Your task to perform on an android device: move a message to another label in the gmail app Image 0: 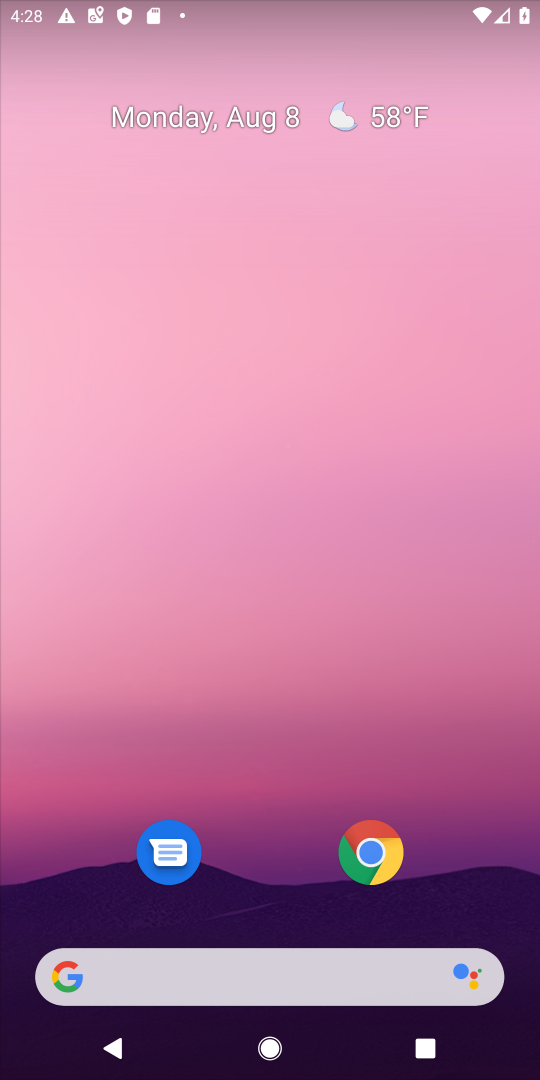
Step 0: press home button
Your task to perform on an android device: move a message to another label in the gmail app Image 1: 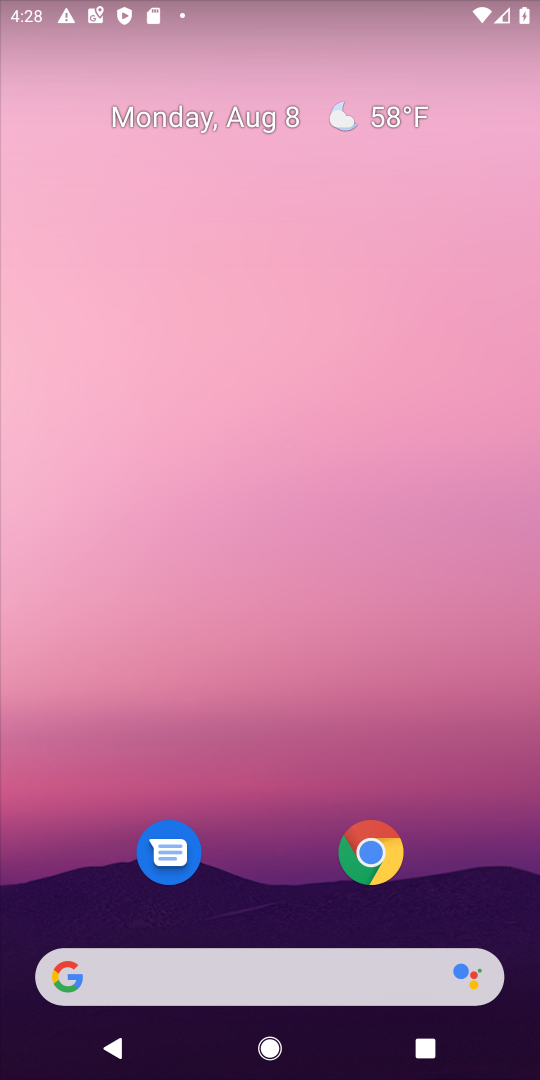
Step 1: press home button
Your task to perform on an android device: move a message to another label in the gmail app Image 2: 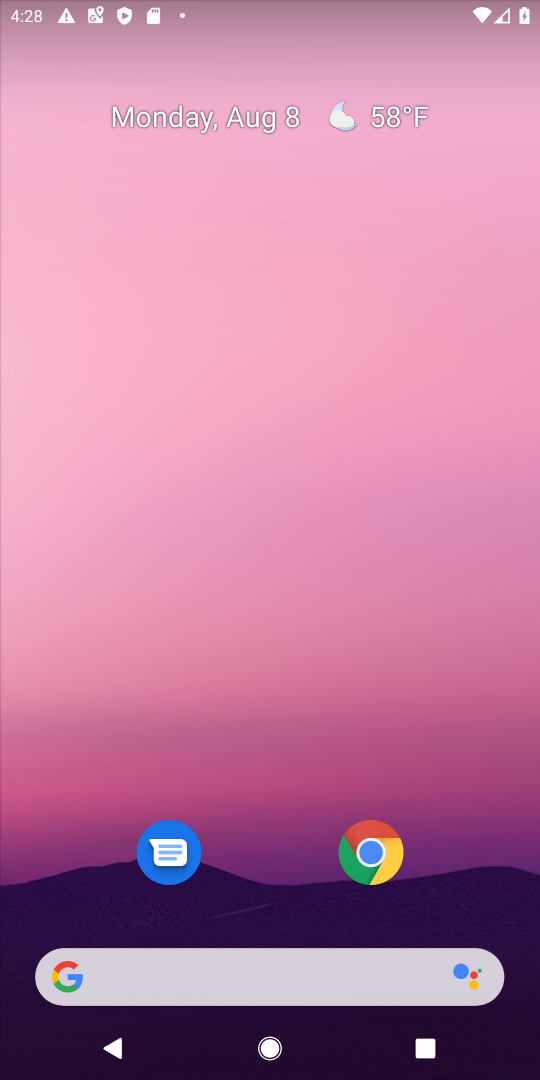
Step 2: drag from (301, 624) to (385, 213)
Your task to perform on an android device: move a message to another label in the gmail app Image 3: 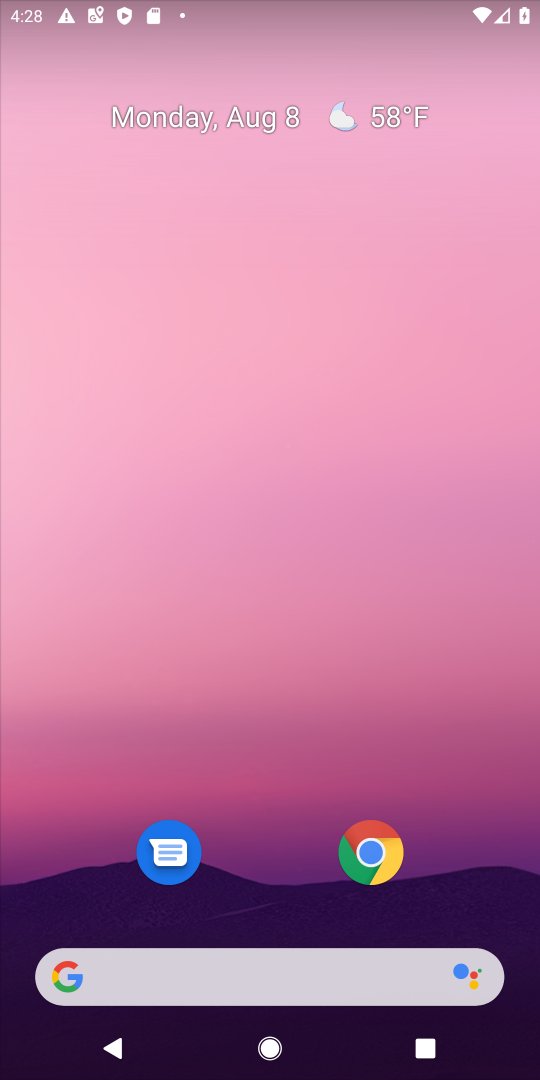
Step 3: drag from (313, 704) to (393, 233)
Your task to perform on an android device: move a message to another label in the gmail app Image 4: 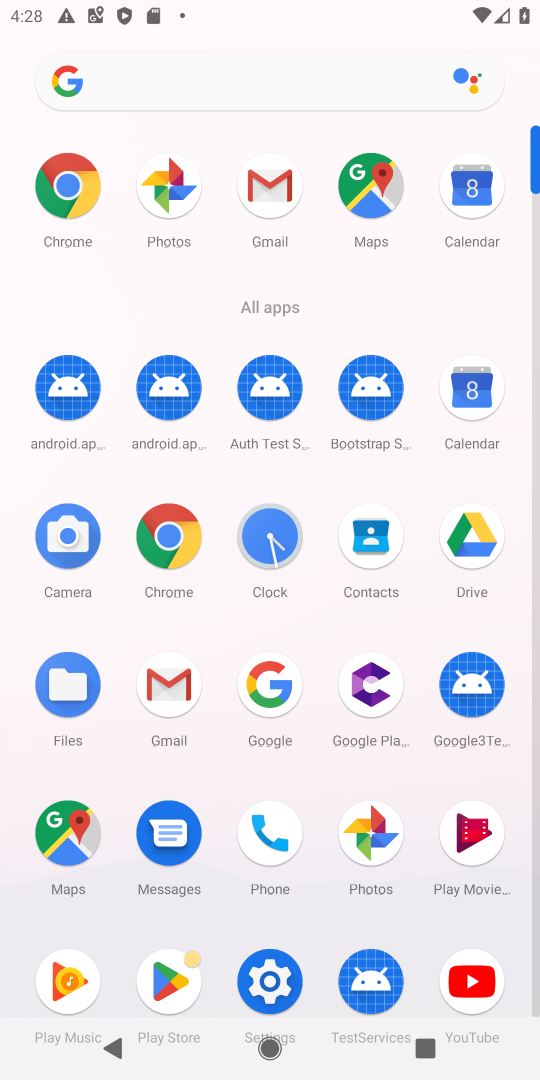
Step 4: click (163, 704)
Your task to perform on an android device: move a message to another label in the gmail app Image 5: 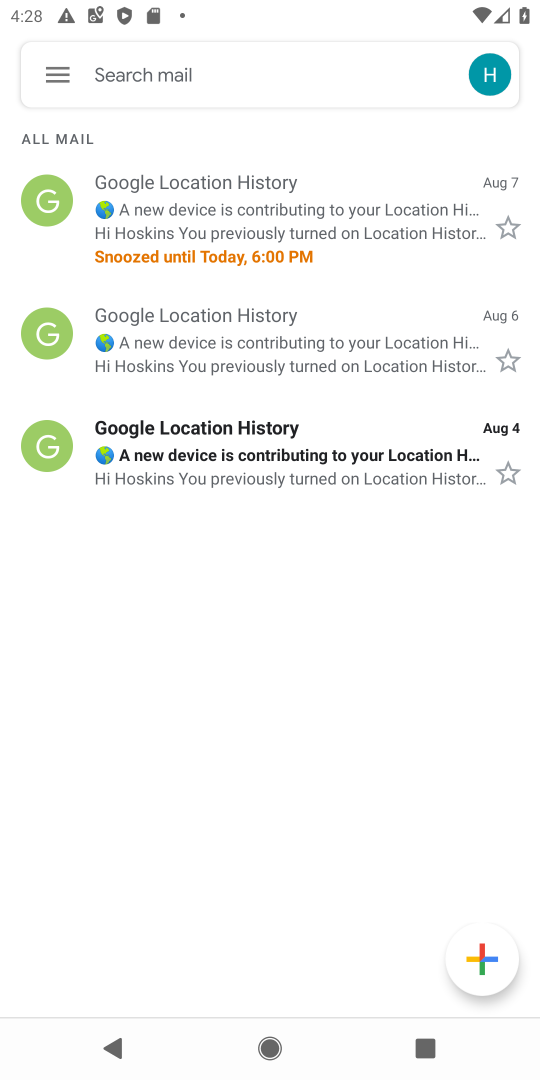
Step 5: click (65, 84)
Your task to perform on an android device: move a message to another label in the gmail app Image 6: 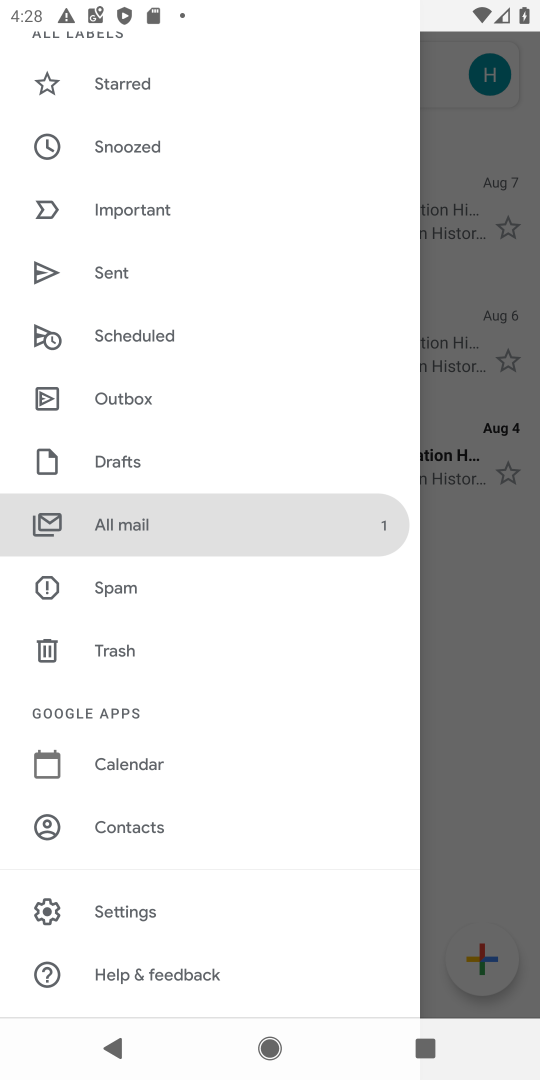
Step 6: click (489, 703)
Your task to perform on an android device: move a message to another label in the gmail app Image 7: 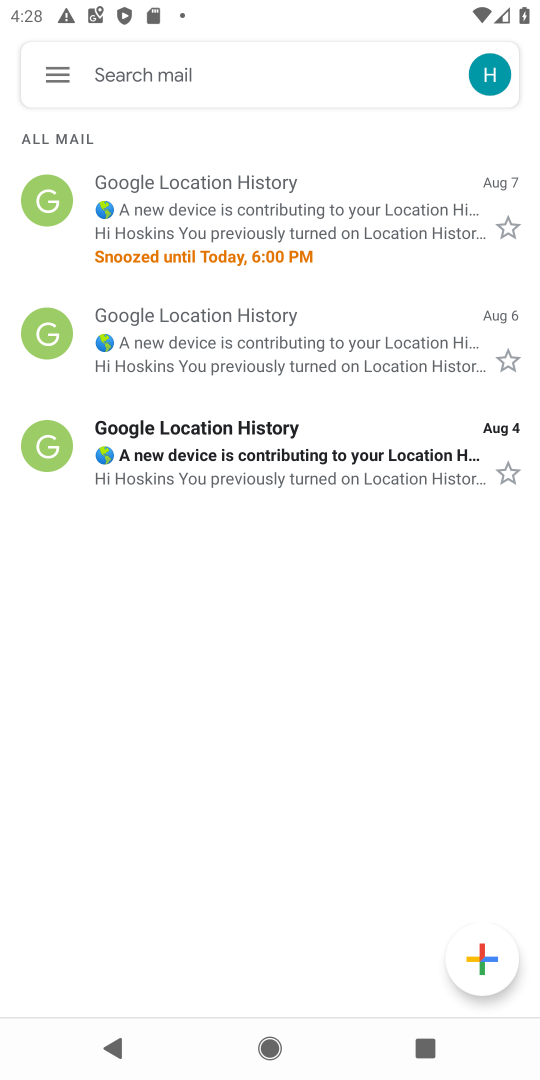
Step 7: click (317, 221)
Your task to perform on an android device: move a message to another label in the gmail app Image 8: 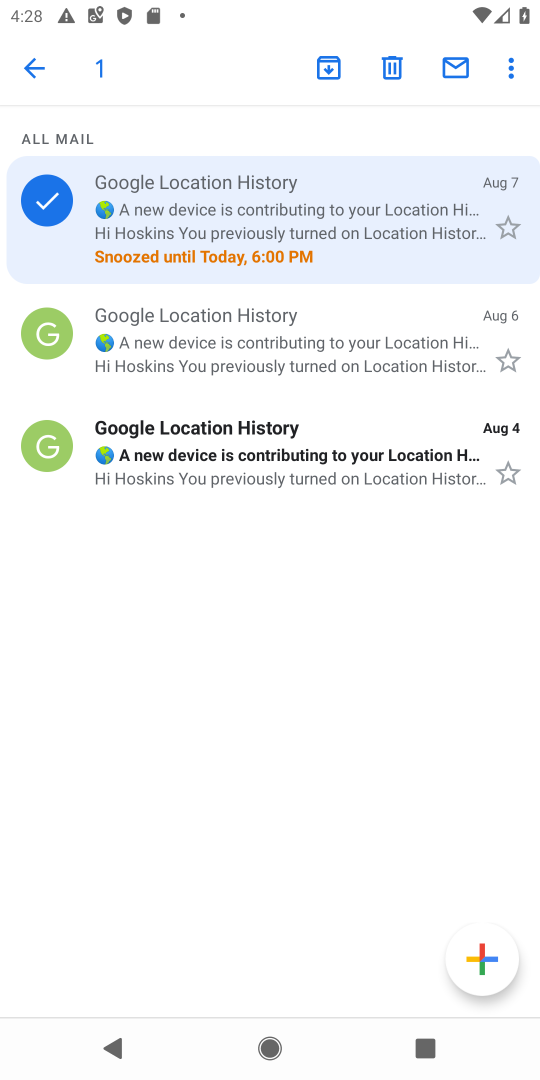
Step 8: click (513, 70)
Your task to perform on an android device: move a message to another label in the gmail app Image 9: 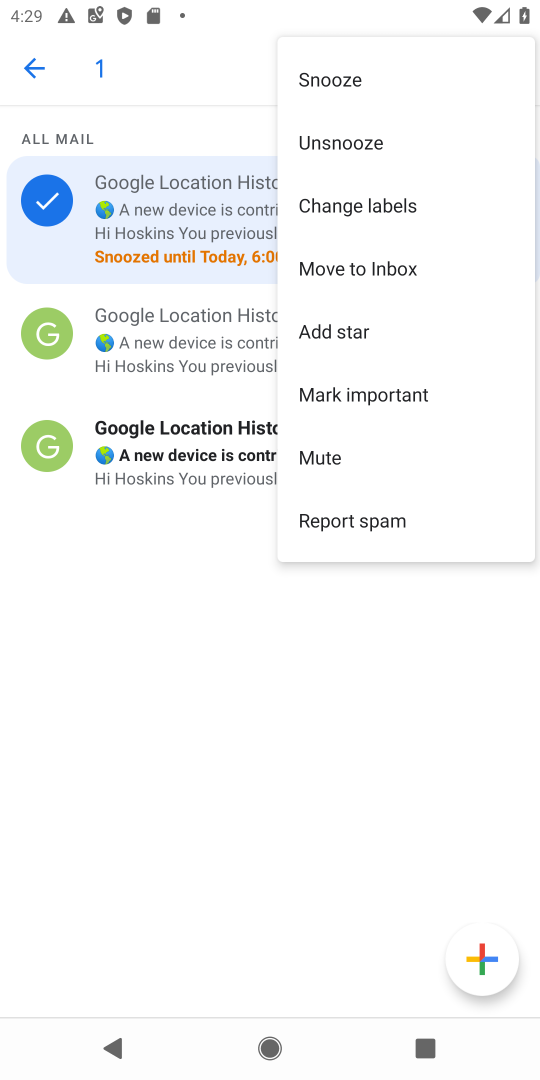
Step 9: click (374, 209)
Your task to perform on an android device: move a message to another label in the gmail app Image 10: 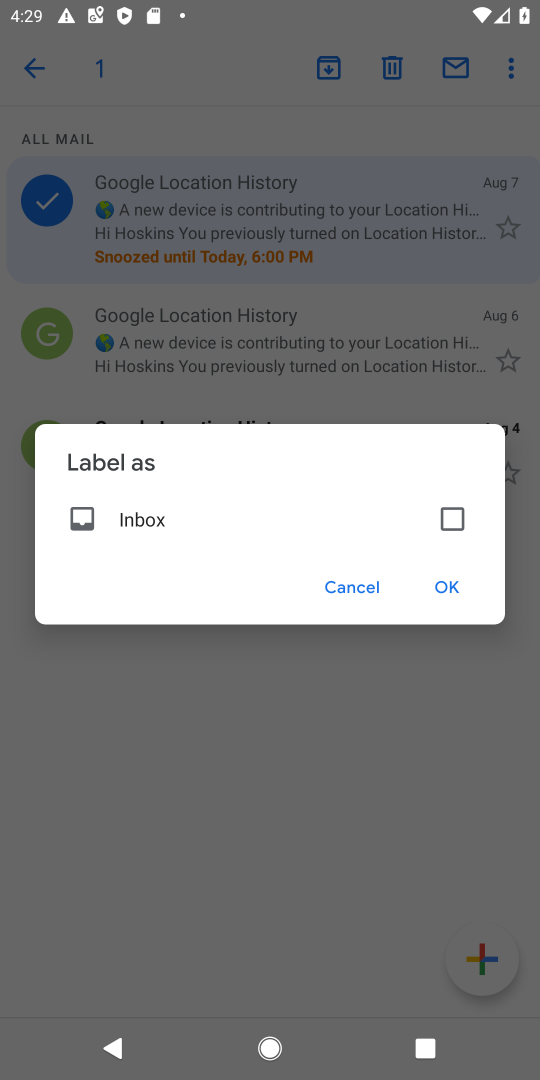
Step 10: click (457, 511)
Your task to perform on an android device: move a message to another label in the gmail app Image 11: 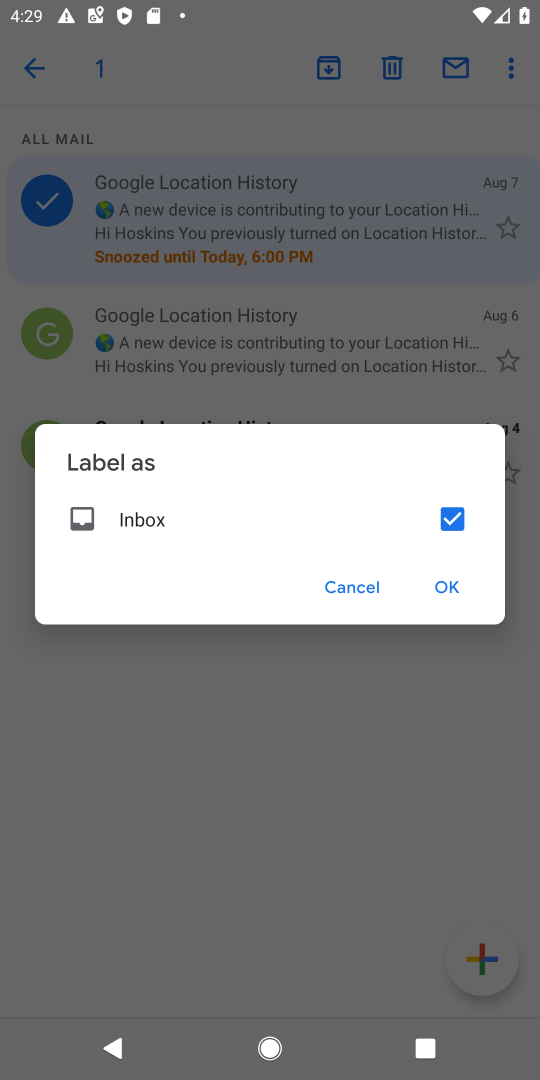
Step 11: click (448, 574)
Your task to perform on an android device: move a message to another label in the gmail app Image 12: 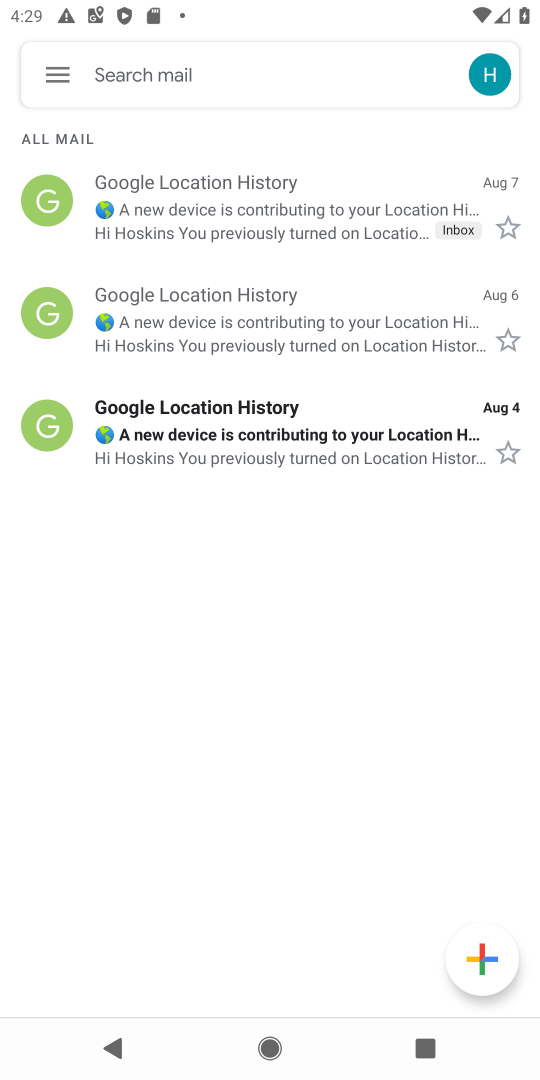
Step 12: task complete